Your task to perform on an android device: turn on sleep mode Image 0: 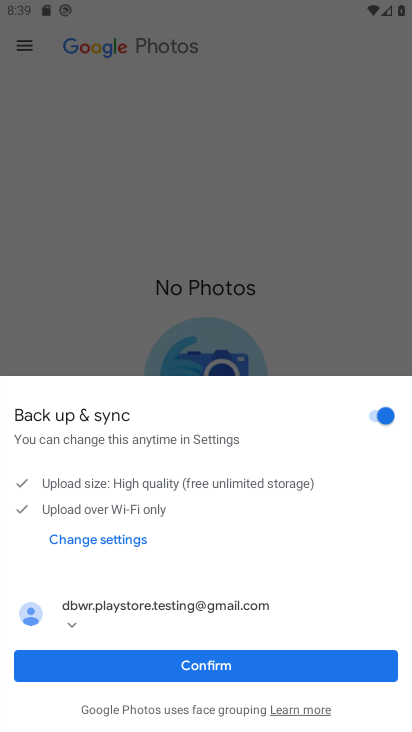
Step 0: press home button
Your task to perform on an android device: turn on sleep mode Image 1: 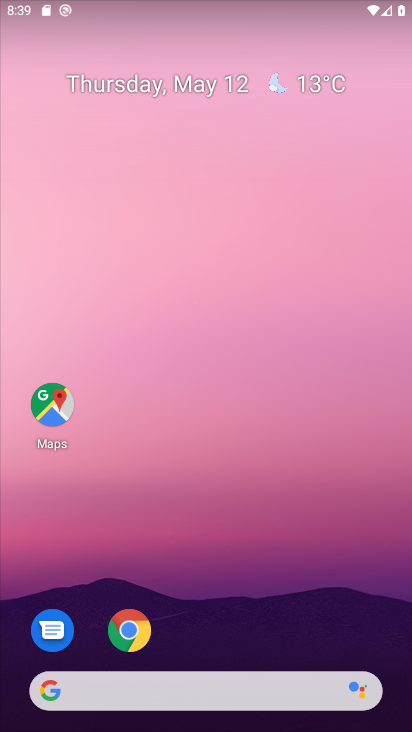
Step 1: drag from (198, 682) to (256, 119)
Your task to perform on an android device: turn on sleep mode Image 2: 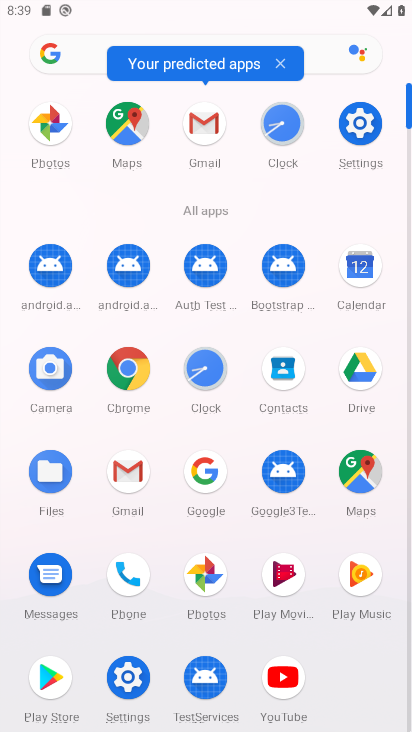
Step 2: click (362, 119)
Your task to perform on an android device: turn on sleep mode Image 3: 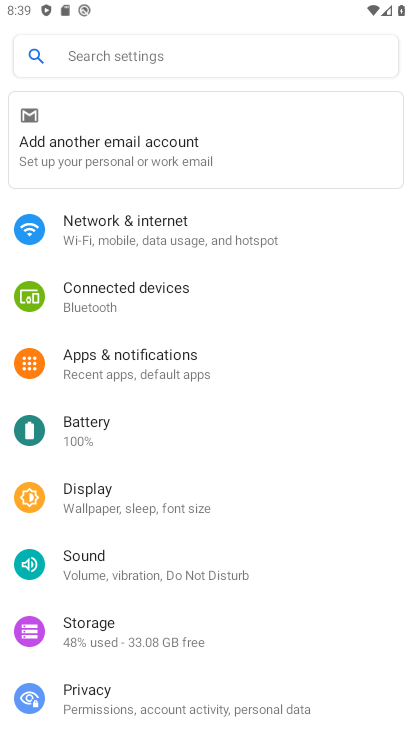
Step 3: click (113, 504)
Your task to perform on an android device: turn on sleep mode Image 4: 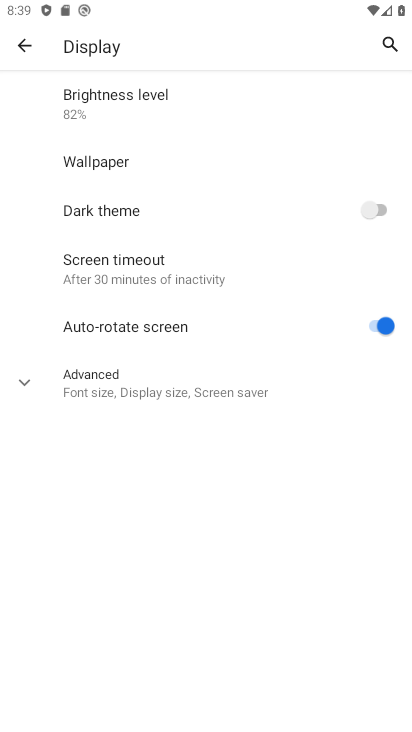
Step 4: click (132, 396)
Your task to perform on an android device: turn on sleep mode Image 5: 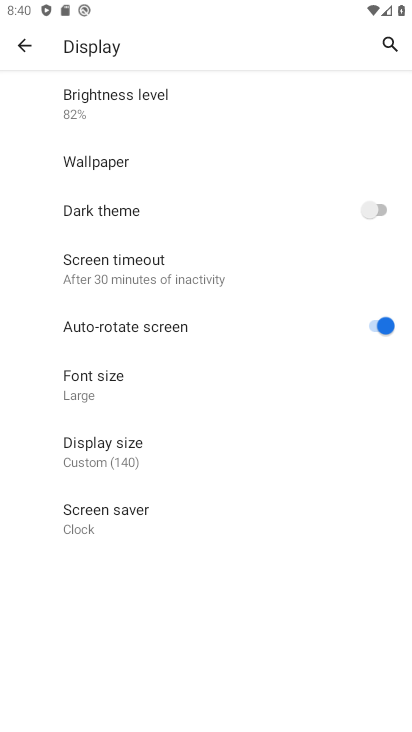
Step 5: task complete